Your task to perform on an android device: Open network settings Image 0: 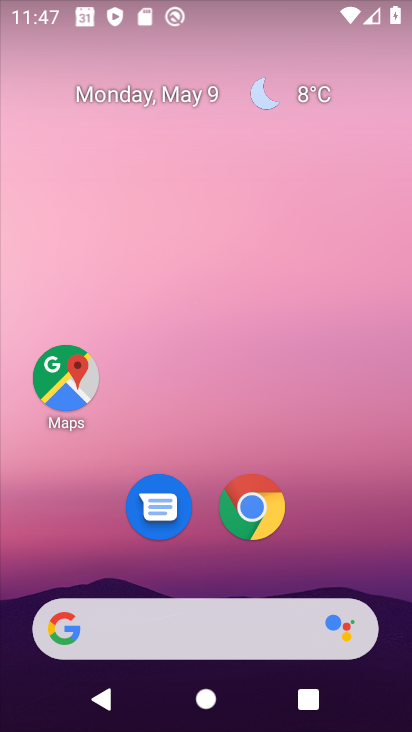
Step 0: drag from (293, 546) to (286, 84)
Your task to perform on an android device: Open network settings Image 1: 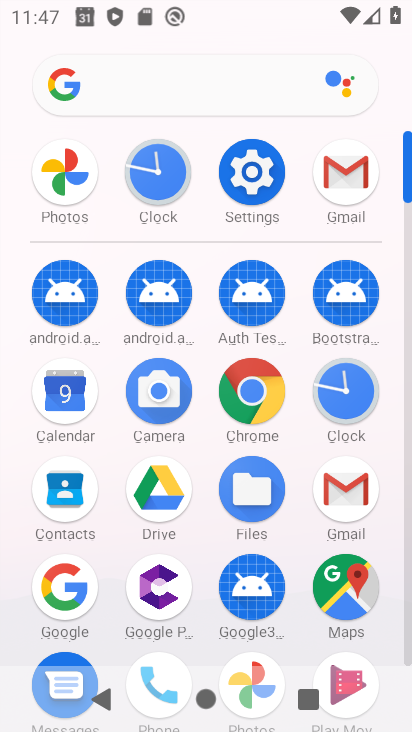
Step 1: click (256, 172)
Your task to perform on an android device: Open network settings Image 2: 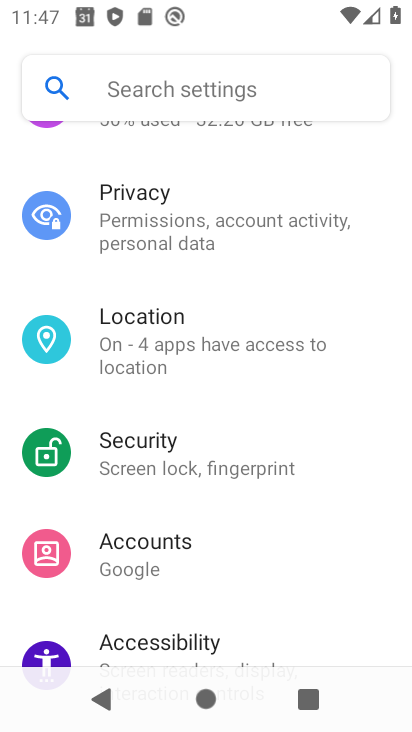
Step 2: drag from (259, 202) to (236, 627)
Your task to perform on an android device: Open network settings Image 3: 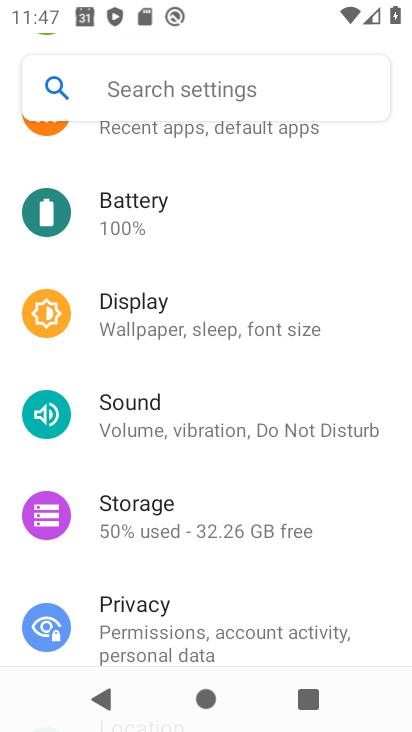
Step 3: drag from (238, 252) to (226, 602)
Your task to perform on an android device: Open network settings Image 4: 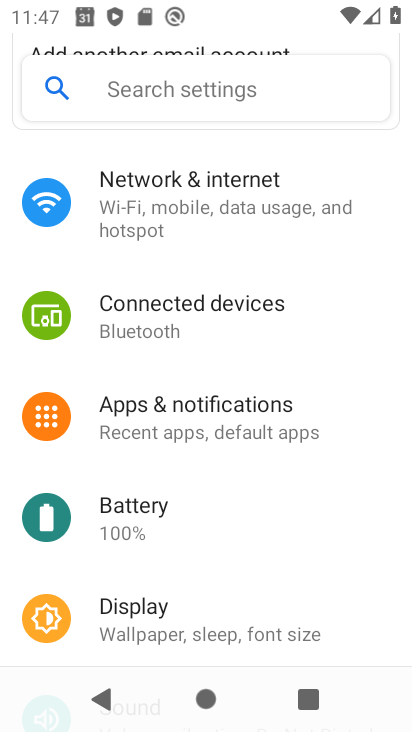
Step 4: click (224, 200)
Your task to perform on an android device: Open network settings Image 5: 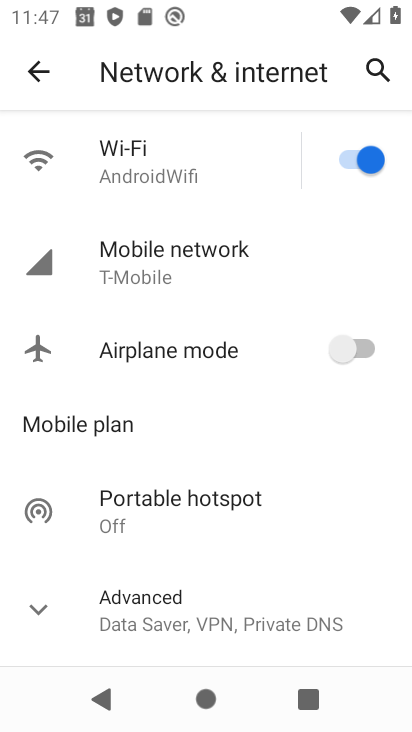
Step 5: task complete